Your task to perform on an android device: find snoozed emails in the gmail app Image 0: 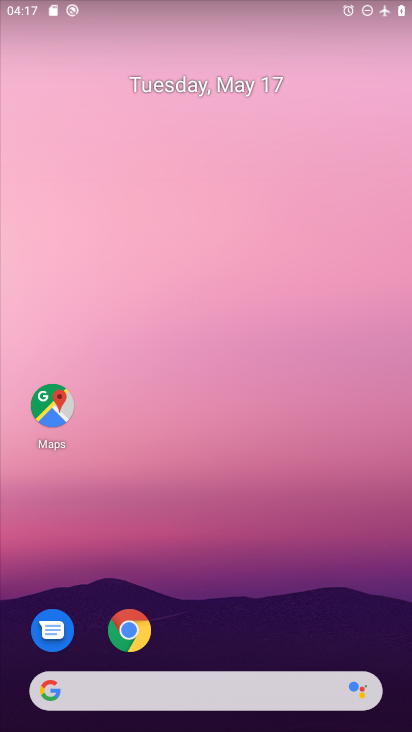
Step 0: drag from (230, 597) to (202, 89)
Your task to perform on an android device: find snoozed emails in the gmail app Image 1: 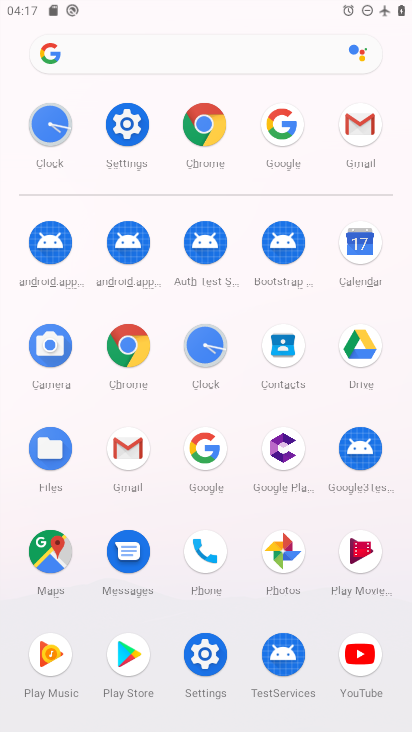
Step 1: click (346, 126)
Your task to perform on an android device: find snoozed emails in the gmail app Image 2: 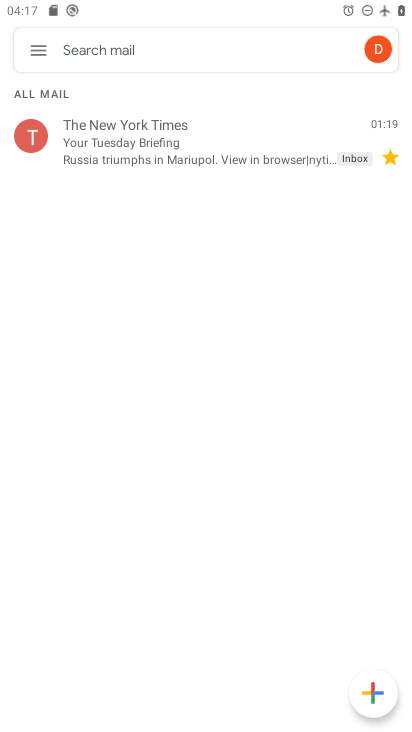
Step 2: click (31, 44)
Your task to perform on an android device: find snoozed emails in the gmail app Image 3: 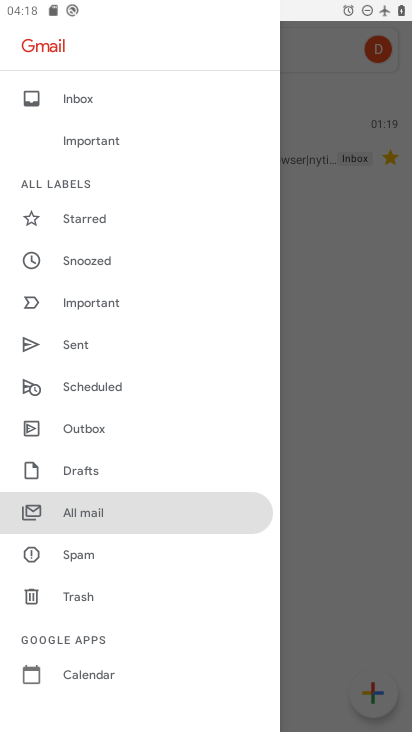
Step 3: click (125, 254)
Your task to perform on an android device: find snoozed emails in the gmail app Image 4: 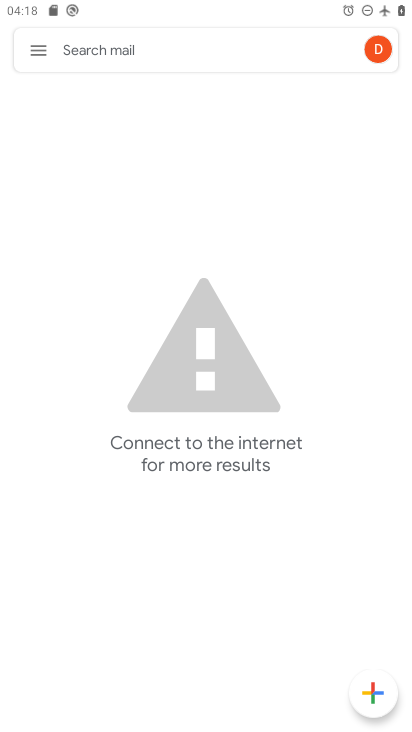
Step 4: drag from (366, 11) to (287, 573)
Your task to perform on an android device: find snoozed emails in the gmail app Image 5: 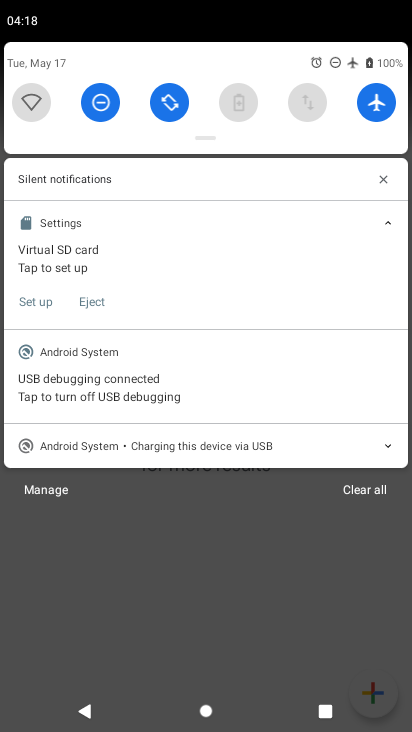
Step 5: click (367, 111)
Your task to perform on an android device: find snoozed emails in the gmail app Image 6: 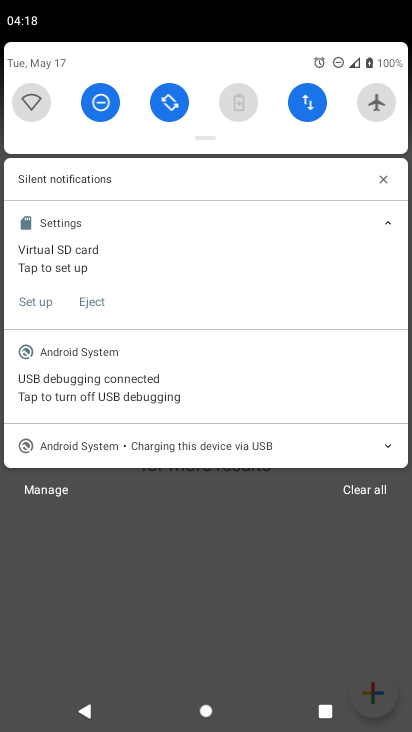
Step 6: click (212, 536)
Your task to perform on an android device: find snoozed emails in the gmail app Image 7: 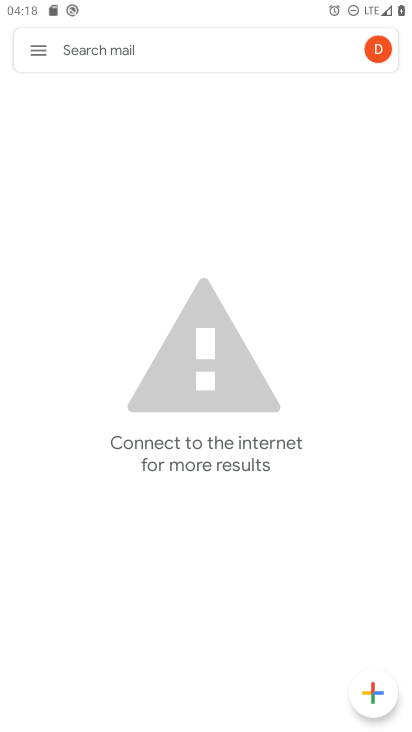
Step 7: task complete